Your task to perform on an android device: Open calendar and show me the third week of next month Image 0: 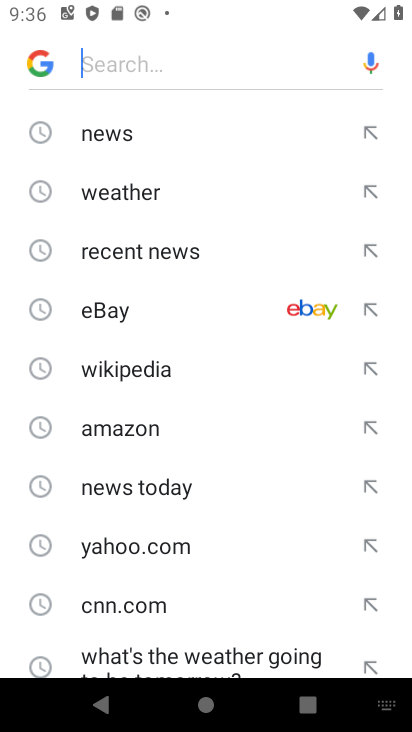
Step 0: press home button
Your task to perform on an android device: Open calendar and show me the third week of next month Image 1: 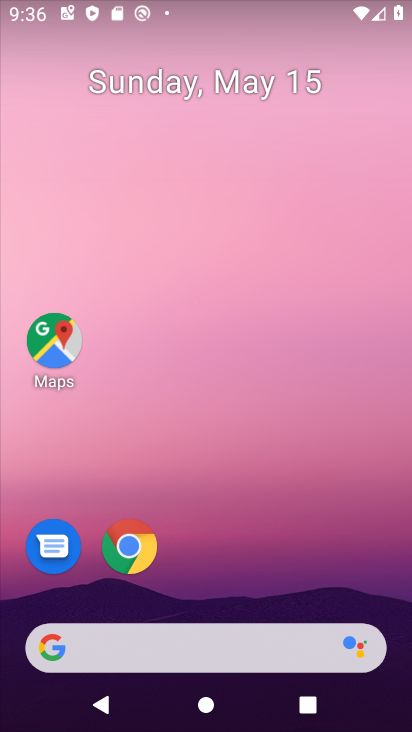
Step 1: click (202, 76)
Your task to perform on an android device: Open calendar and show me the third week of next month Image 2: 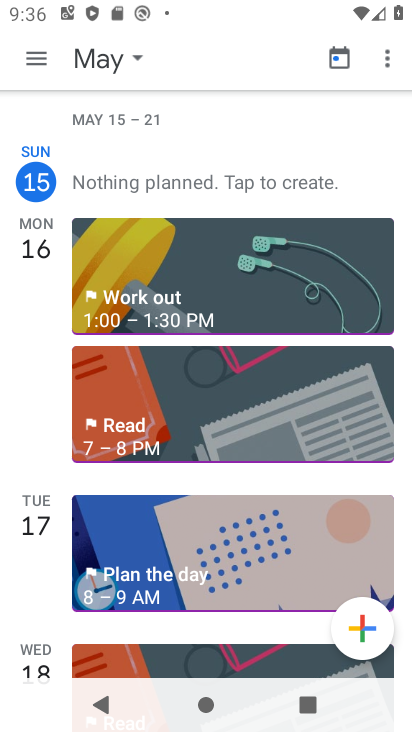
Step 2: click (32, 49)
Your task to perform on an android device: Open calendar and show me the third week of next month Image 3: 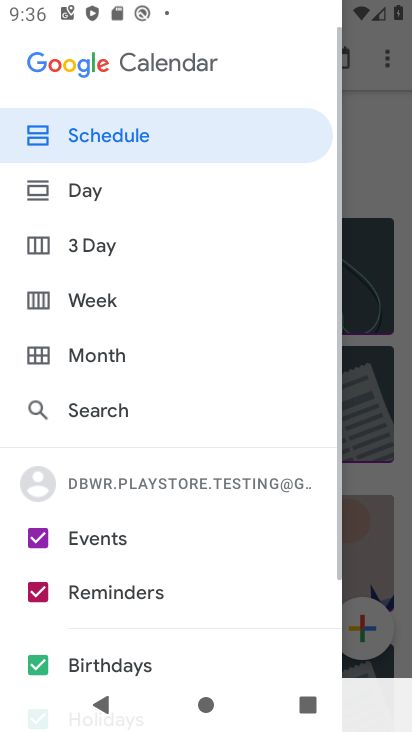
Step 3: click (96, 305)
Your task to perform on an android device: Open calendar and show me the third week of next month Image 4: 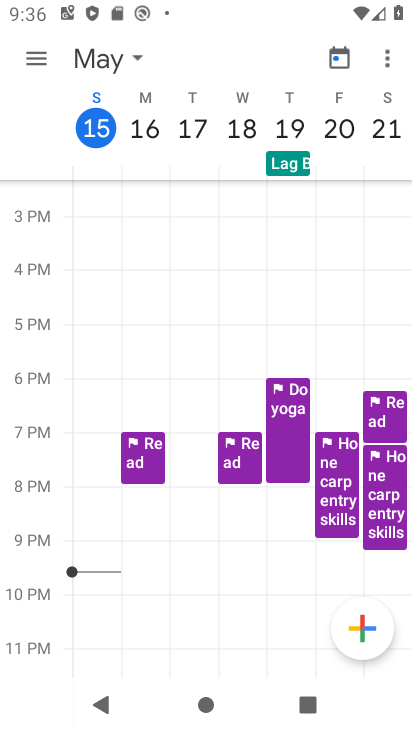
Step 4: click (117, 55)
Your task to perform on an android device: Open calendar and show me the third week of next month Image 5: 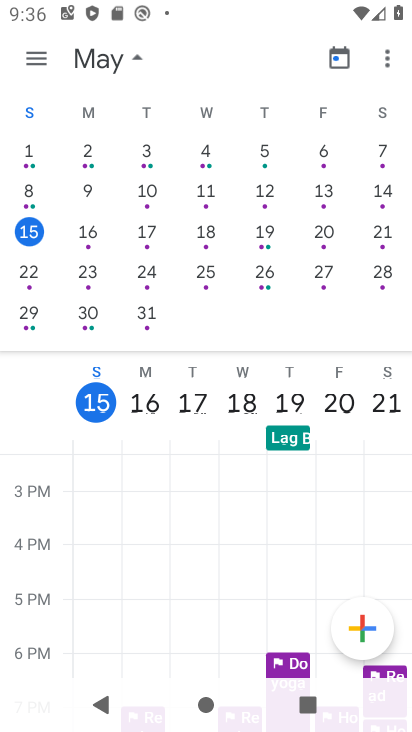
Step 5: drag from (346, 206) to (0, 213)
Your task to perform on an android device: Open calendar and show me the third week of next month Image 6: 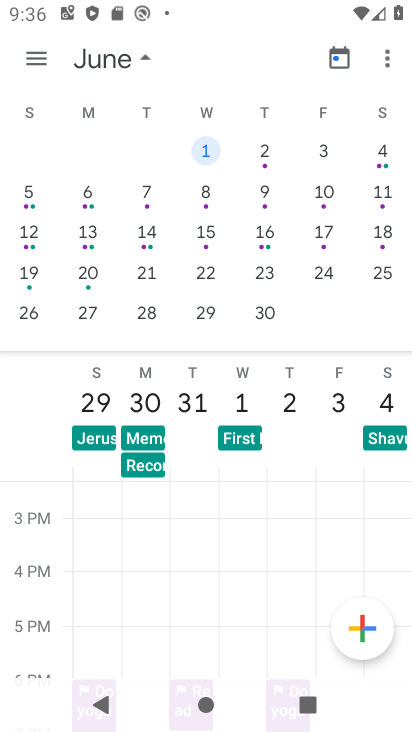
Step 6: click (39, 230)
Your task to perform on an android device: Open calendar and show me the third week of next month Image 7: 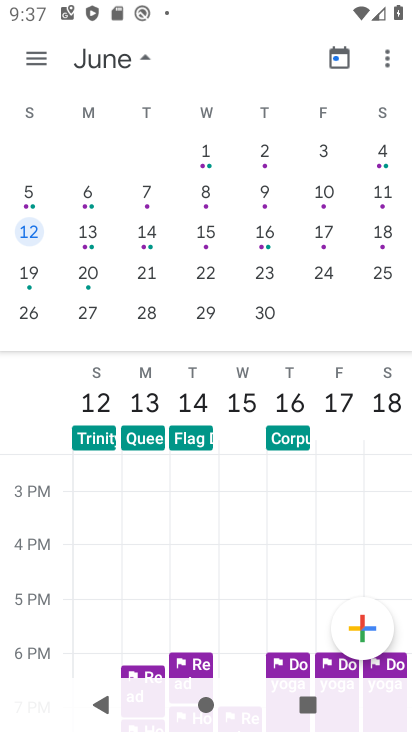
Step 7: task complete